Your task to perform on an android device: turn off translation in the chrome app Image 0: 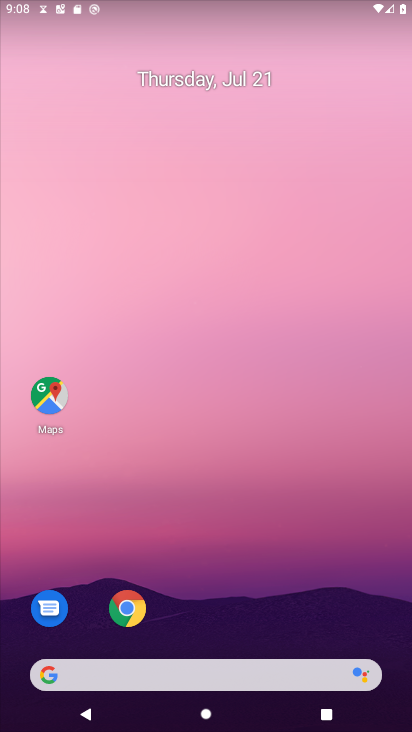
Step 0: click (122, 611)
Your task to perform on an android device: turn off translation in the chrome app Image 1: 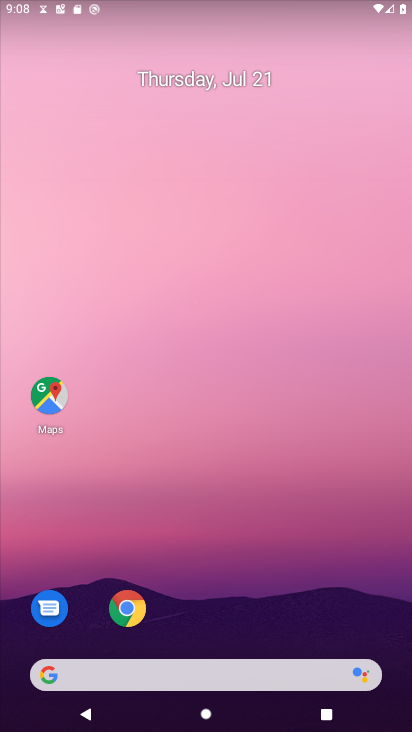
Step 1: click (122, 611)
Your task to perform on an android device: turn off translation in the chrome app Image 2: 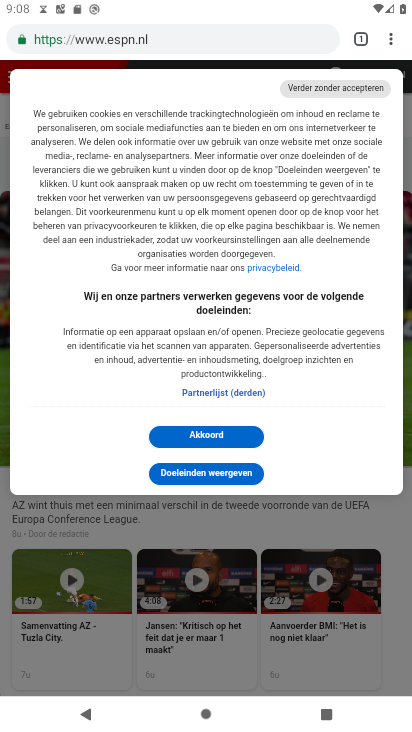
Step 2: click (390, 41)
Your task to perform on an android device: turn off translation in the chrome app Image 3: 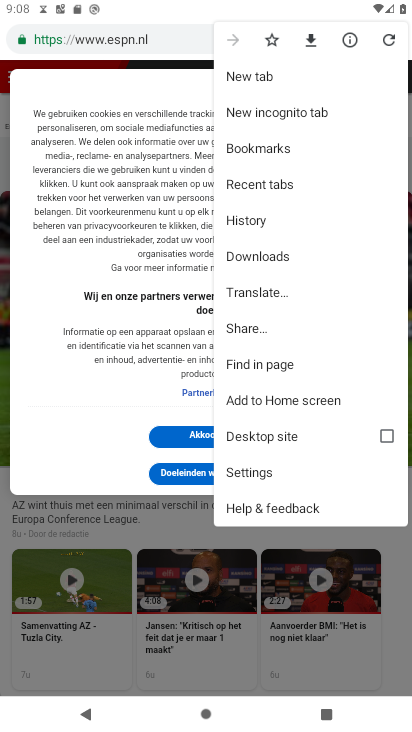
Step 3: click (236, 476)
Your task to perform on an android device: turn off translation in the chrome app Image 4: 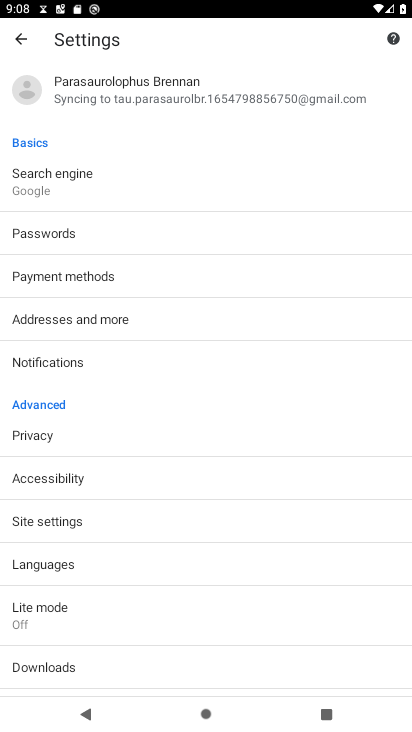
Step 4: click (80, 559)
Your task to perform on an android device: turn off translation in the chrome app Image 5: 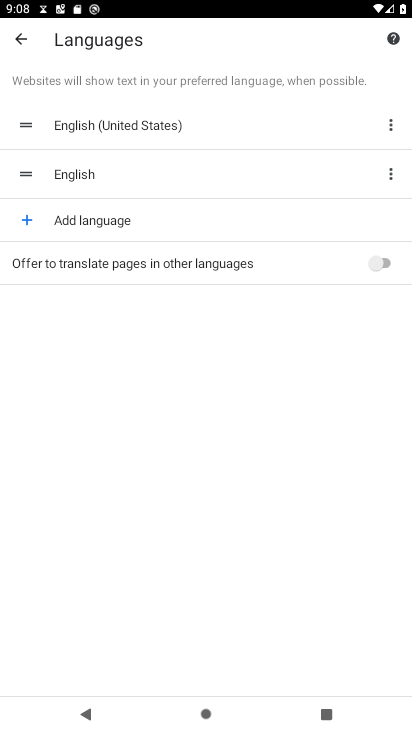
Step 5: task complete